Your task to perform on an android device: toggle javascript in the chrome app Image 0: 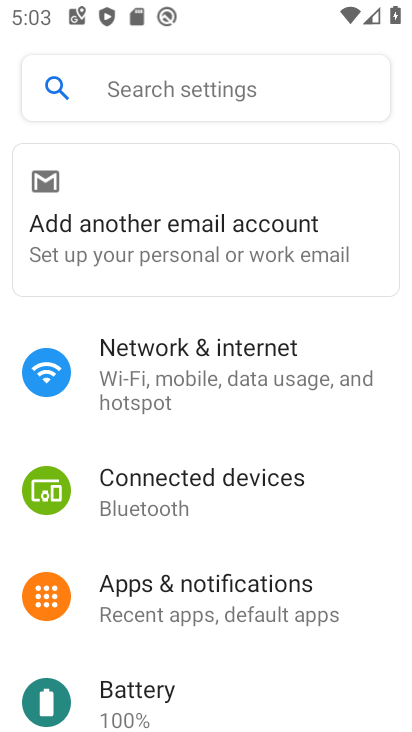
Step 0: press back button
Your task to perform on an android device: toggle javascript in the chrome app Image 1: 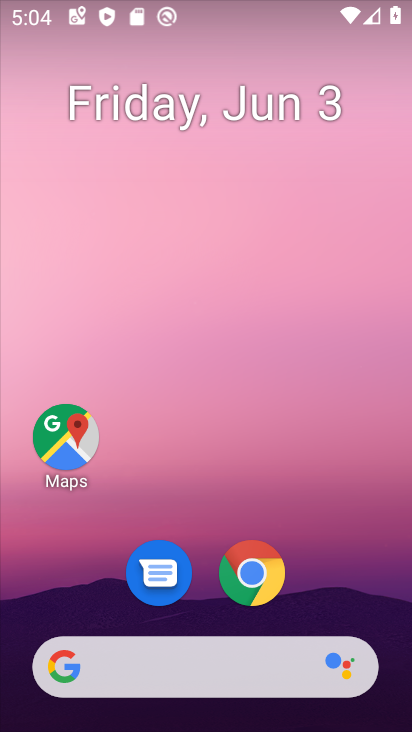
Step 1: click (263, 572)
Your task to perform on an android device: toggle javascript in the chrome app Image 2: 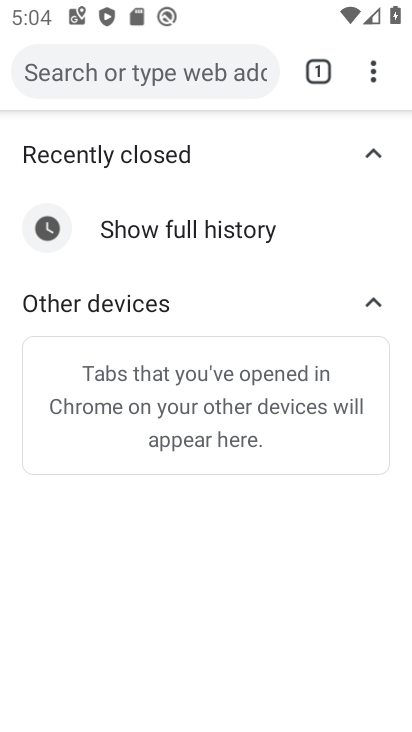
Step 2: click (368, 82)
Your task to perform on an android device: toggle javascript in the chrome app Image 3: 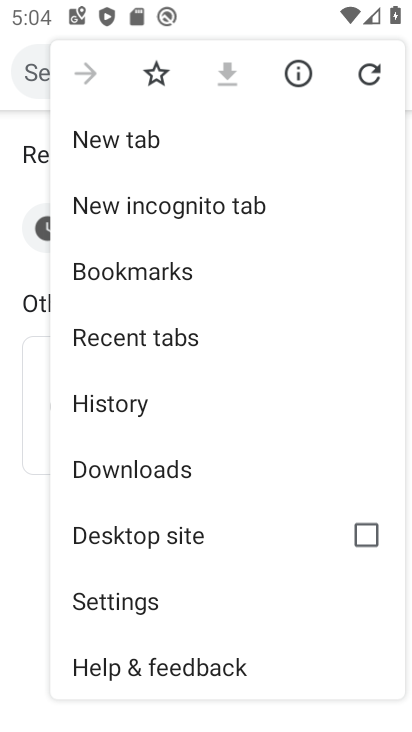
Step 3: click (143, 604)
Your task to perform on an android device: toggle javascript in the chrome app Image 4: 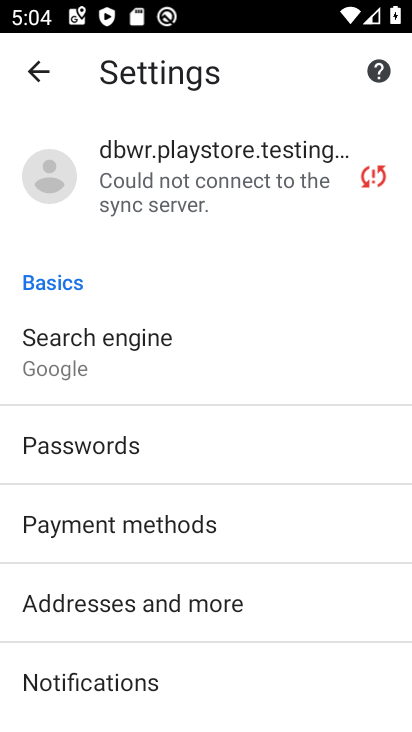
Step 4: drag from (202, 682) to (166, 446)
Your task to perform on an android device: toggle javascript in the chrome app Image 5: 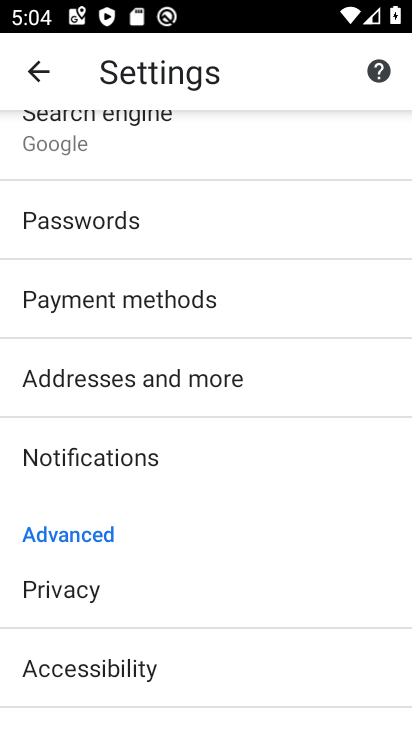
Step 5: drag from (184, 671) to (156, 426)
Your task to perform on an android device: toggle javascript in the chrome app Image 6: 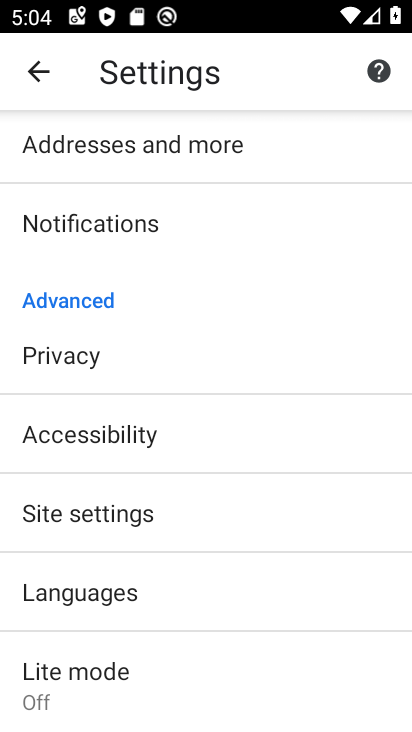
Step 6: click (116, 515)
Your task to perform on an android device: toggle javascript in the chrome app Image 7: 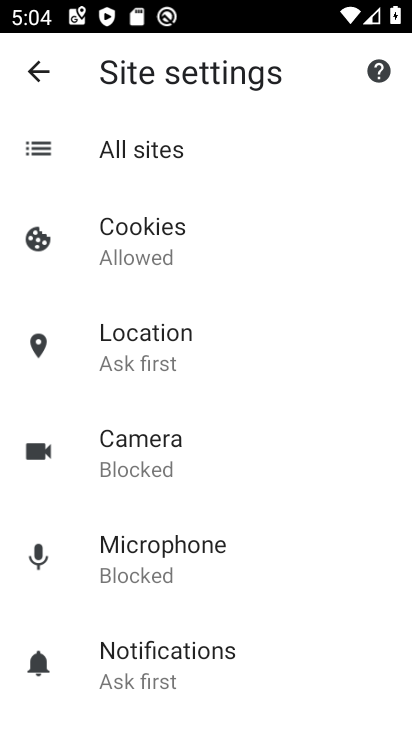
Step 7: drag from (215, 652) to (201, 497)
Your task to perform on an android device: toggle javascript in the chrome app Image 8: 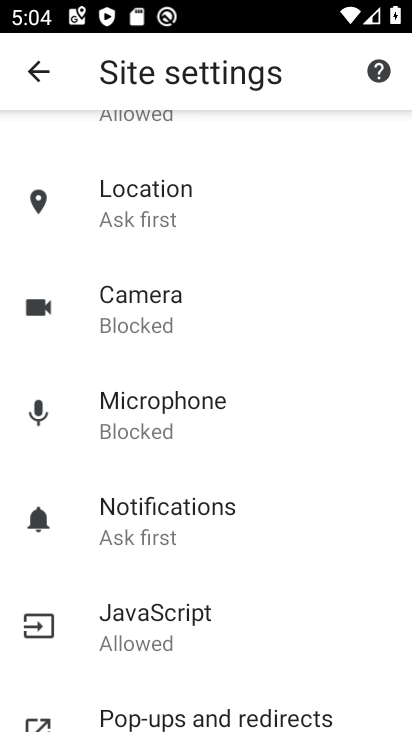
Step 8: click (209, 638)
Your task to perform on an android device: toggle javascript in the chrome app Image 9: 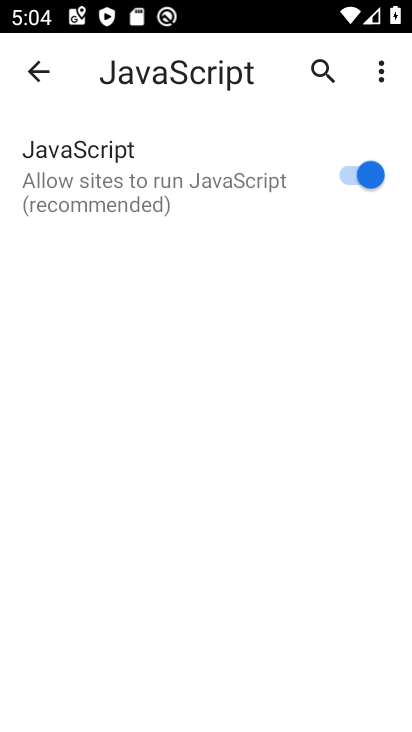
Step 9: click (337, 183)
Your task to perform on an android device: toggle javascript in the chrome app Image 10: 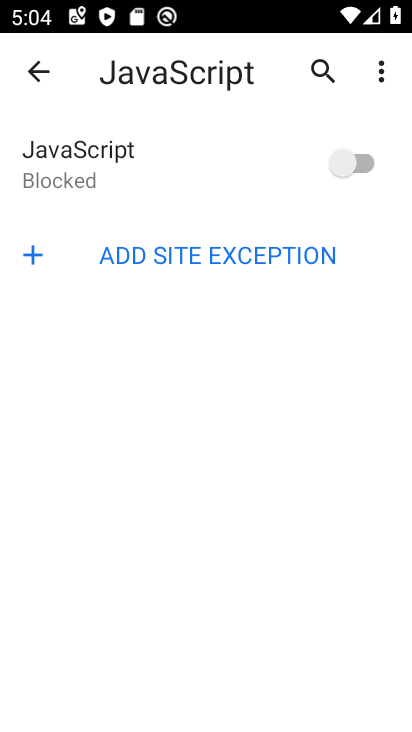
Step 10: task complete